Your task to perform on an android device: check storage Image 0: 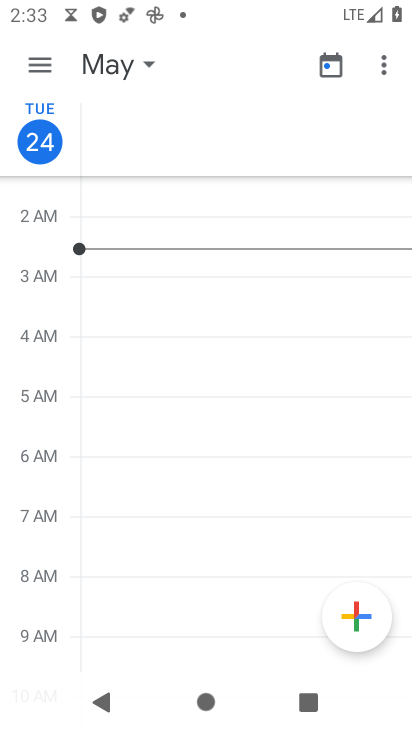
Step 0: press home button
Your task to perform on an android device: check storage Image 1: 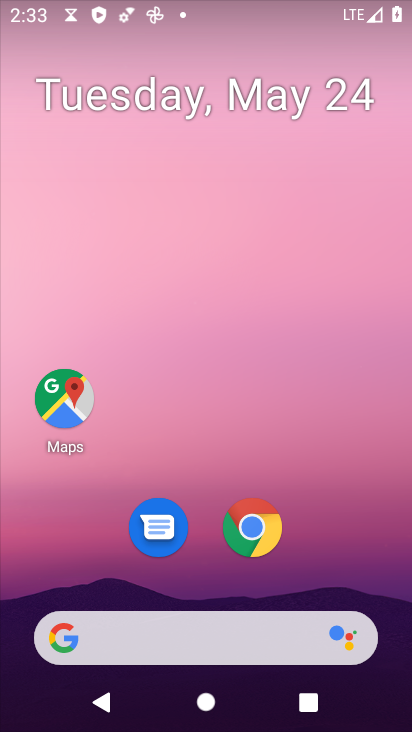
Step 1: drag from (177, 636) to (261, 78)
Your task to perform on an android device: check storage Image 2: 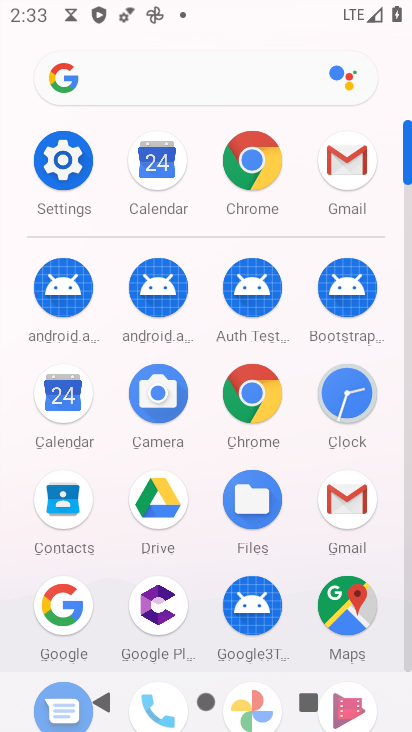
Step 2: click (62, 173)
Your task to perform on an android device: check storage Image 3: 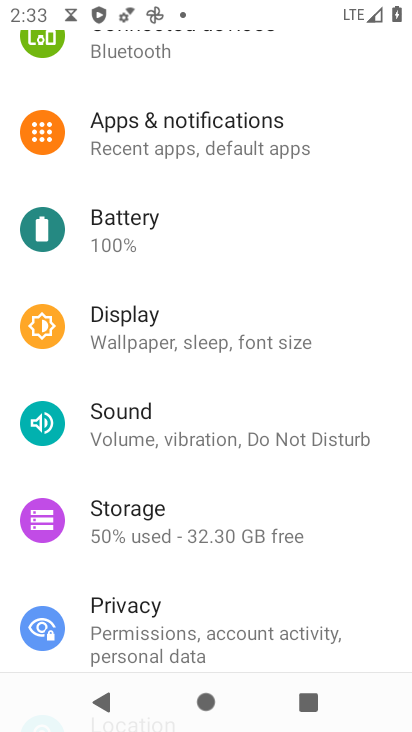
Step 3: click (160, 535)
Your task to perform on an android device: check storage Image 4: 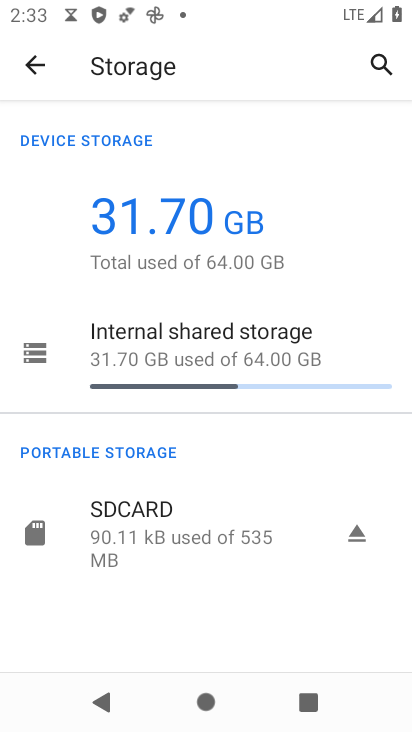
Step 4: task complete